Your task to perform on an android device: Open my contact list Image 0: 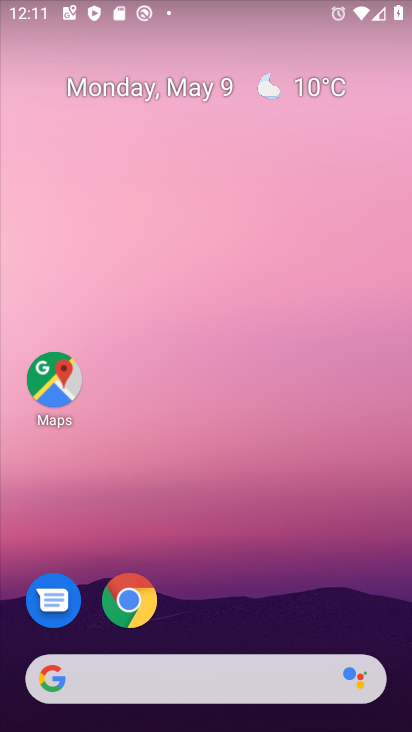
Step 0: drag from (247, 358) to (254, 253)
Your task to perform on an android device: Open my contact list Image 1: 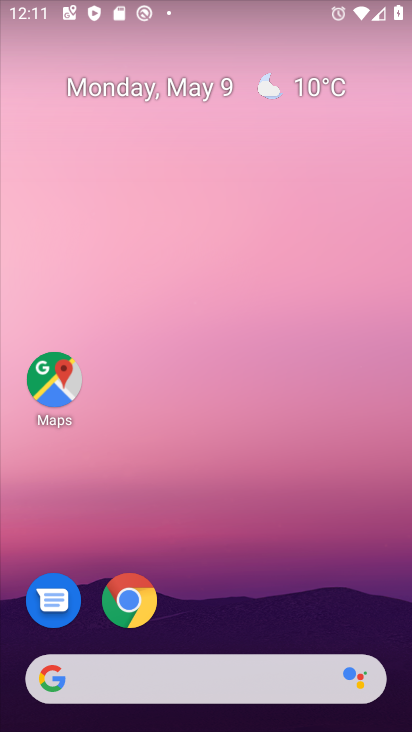
Step 1: drag from (248, 608) to (246, 137)
Your task to perform on an android device: Open my contact list Image 2: 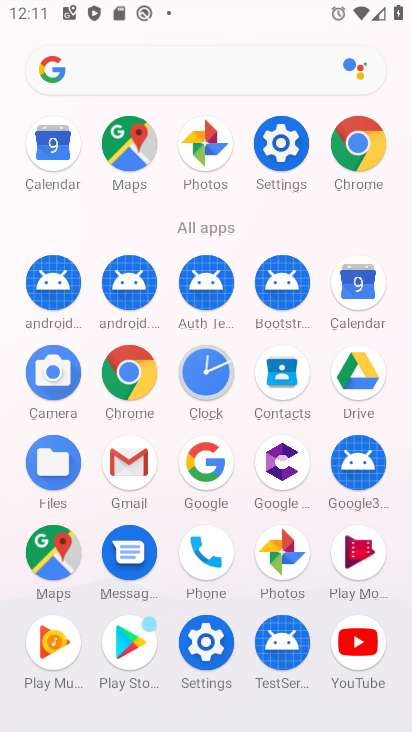
Step 2: click (281, 376)
Your task to perform on an android device: Open my contact list Image 3: 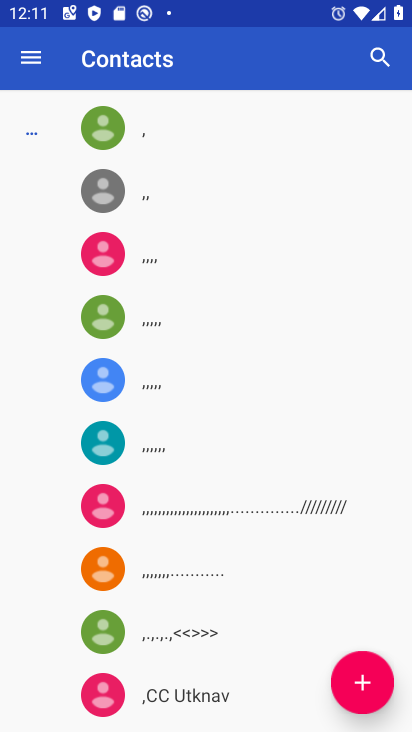
Step 3: task complete